Your task to perform on an android device: move a message to another label in the gmail app Image 0: 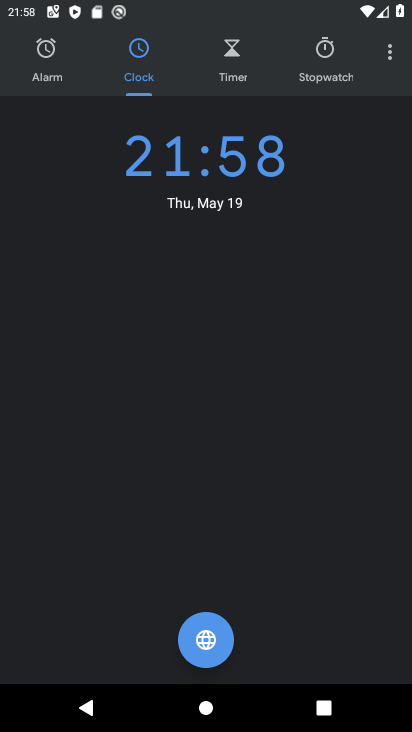
Step 0: press home button
Your task to perform on an android device: move a message to another label in the gmail app Image 1: 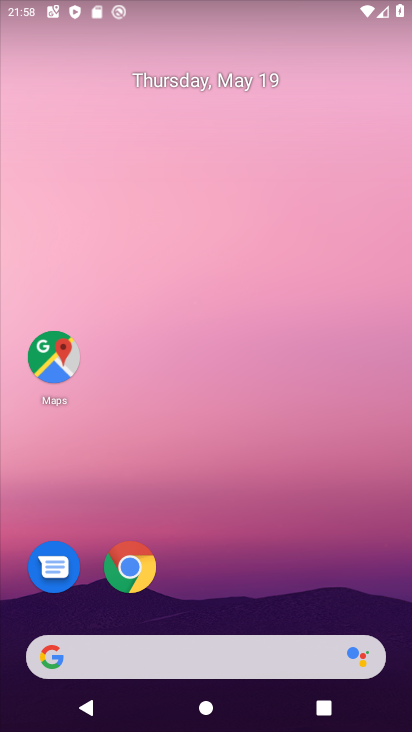
Step 1: drag from (218, 612) to (216, 48)
Your task to perform on an android device: move a message to another label in the gmail app Image 2: 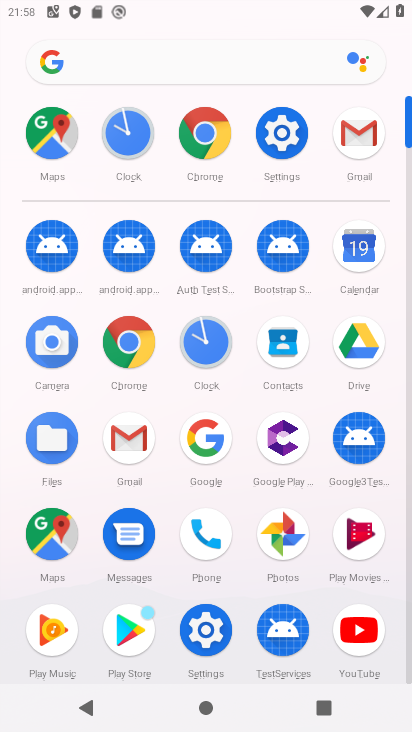
Step 2: click (357, 131)
Your task to perform on an android device: move a message to another label in the gmail app Image 3: 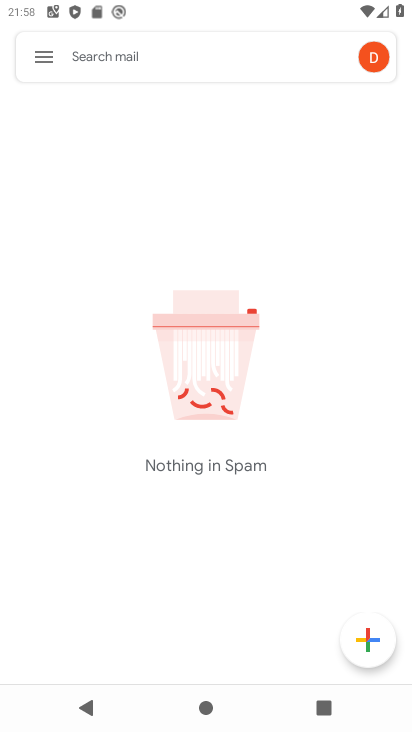
Step 3: click (36, 60)
Your task to perform on an android device: move a message to another label in the gmail app Image 4: 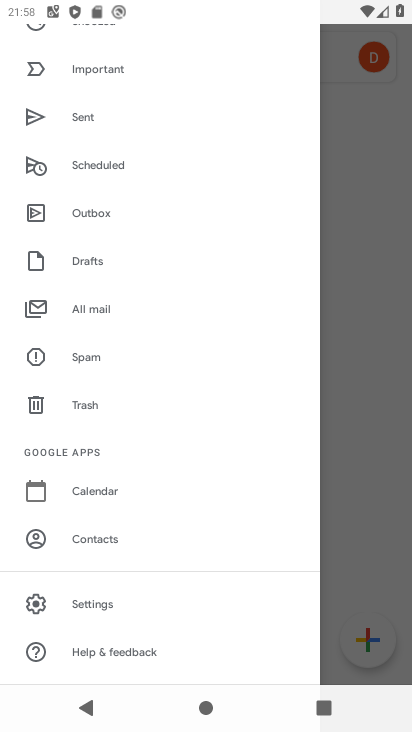
Step 4: click (95, 303)
Your task to perform on an android device: move a message to another label in the gmail app Image 5: 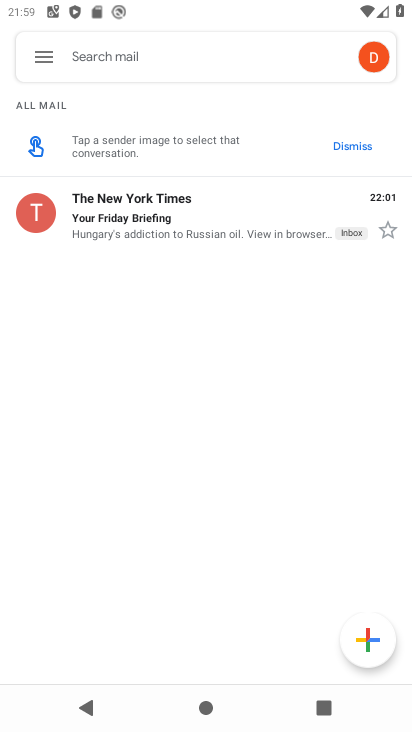
Step 5: click (43, 211)
Your task to perform on an android device: move a message to another label in the gmail app Image 6: 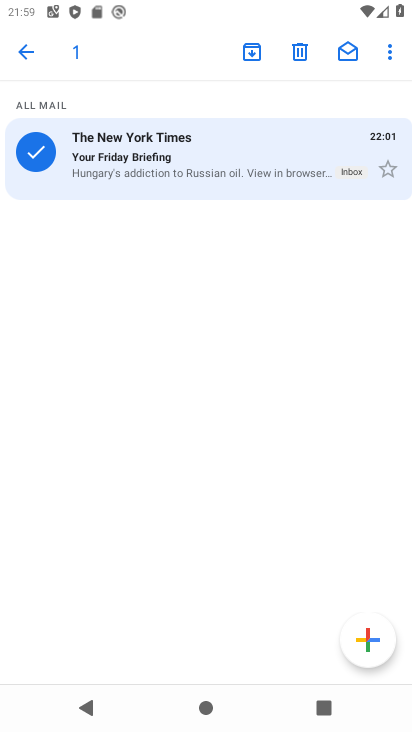
Step 6: click (389, 50)
Your task to perform on an android device: move a message to another label in the gmail app Image 7: 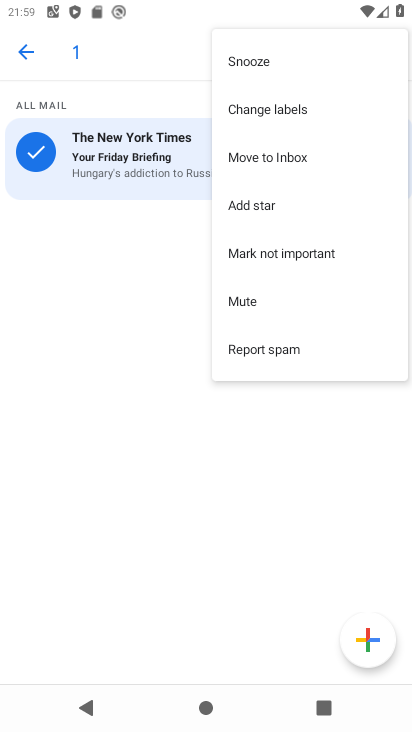
Step 7: click (285, 156)
Your task to perform on an android device: move a message to another label in the gmail app Image 8: 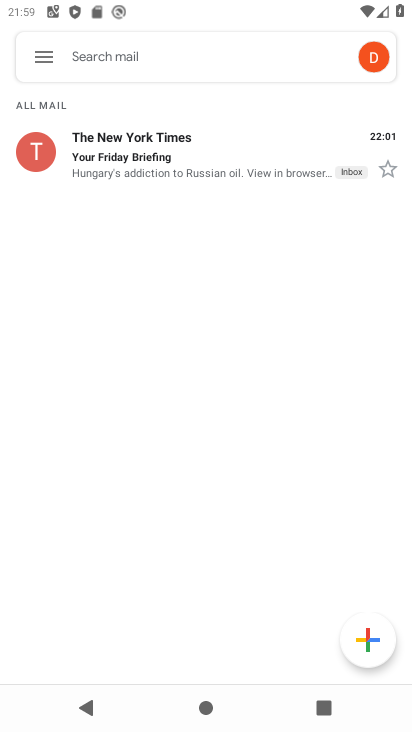
Step 8: task complete